Your task to perform on an android device: manage bookmarks in the chrome app Image 0: 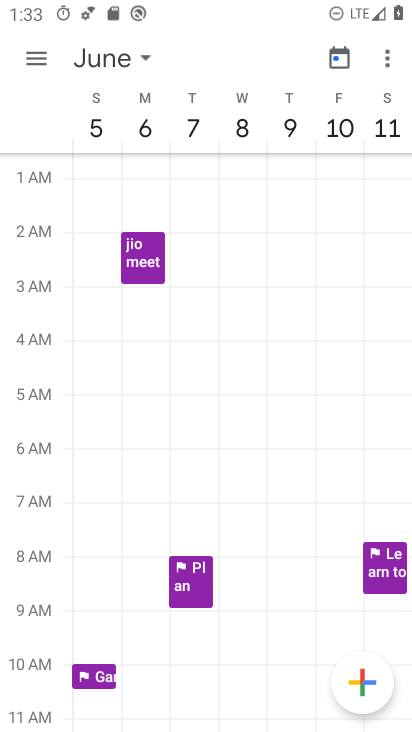
Step 0: press home button
Your task to perform on an android device: manage bookmarks in the chrome app Image 1: 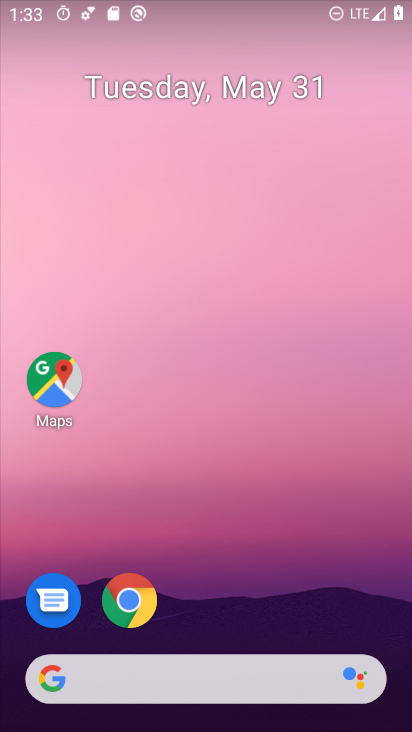
Step 1: click (128, 601)
Your task to perform on an android device: manage bookmarks in the chrome app Image 2: 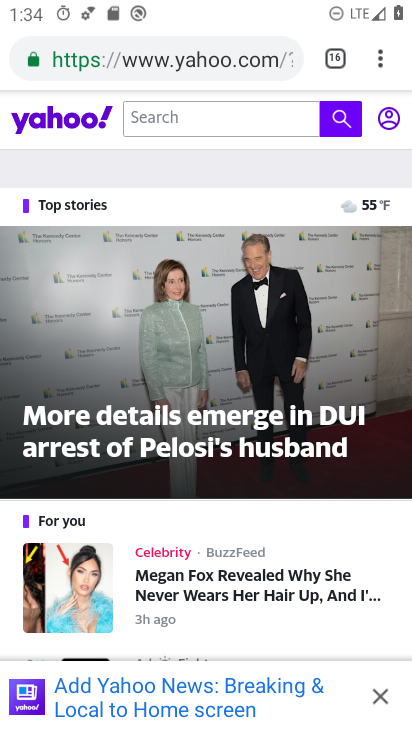
Step 2: click (381, 66)
Your task to perform on an android device: manage bookmarks in the chrome app Image 3: 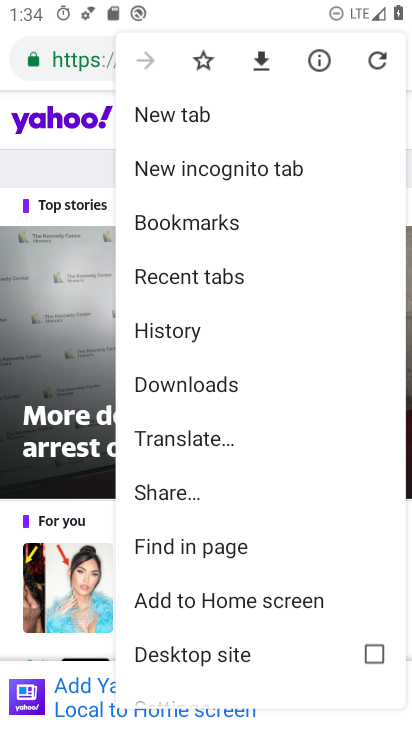
Step 3: click (201, 220)
Your task to perform on an android device: manage bookmarks in the chrome app Image 4: 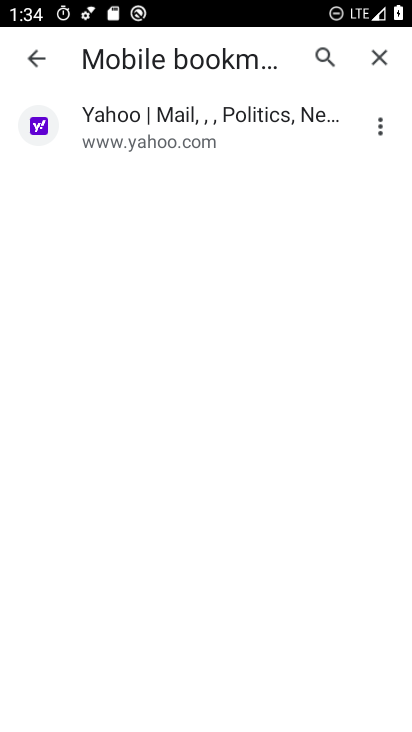
Step 4: click (378, 127)
Your task to perform on an android device: manage bookmarks in the chrome app Image 5: 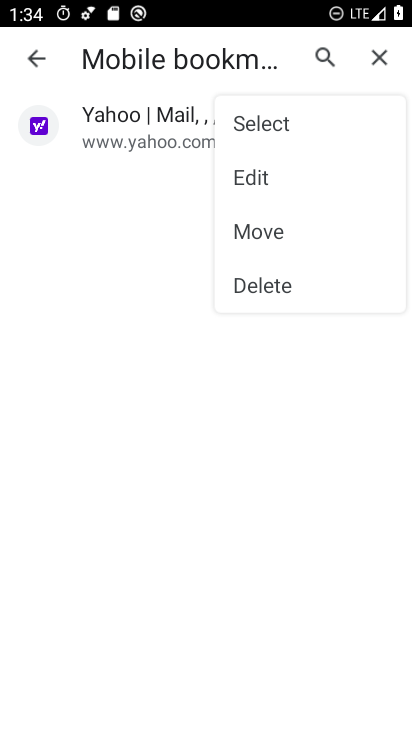
Step 5: click (246, 185)
Your task to perform on an android device: manage bookmarks in the chrome app Image 6: 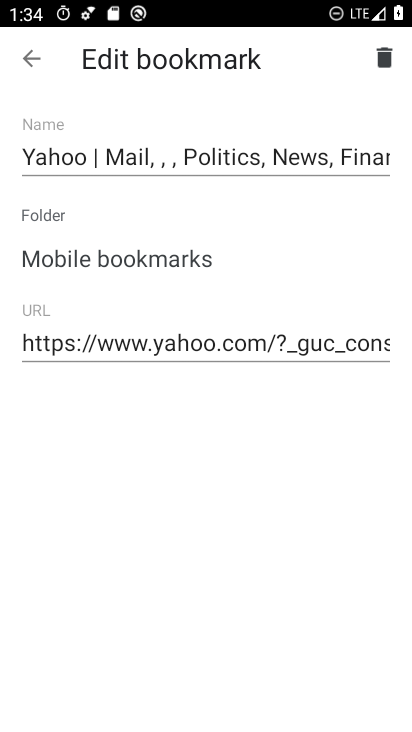
Step 6: click (235, 152)
Your task to perform on an android device: manage bookmarks in the chrome app Image 7: 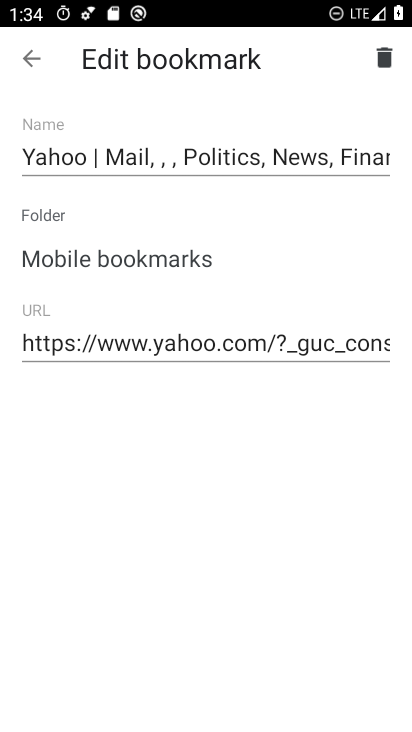
Step 7: click (235, 152)
Your task to perform on an android device: manage bookmarks in the chrome app Image 8: 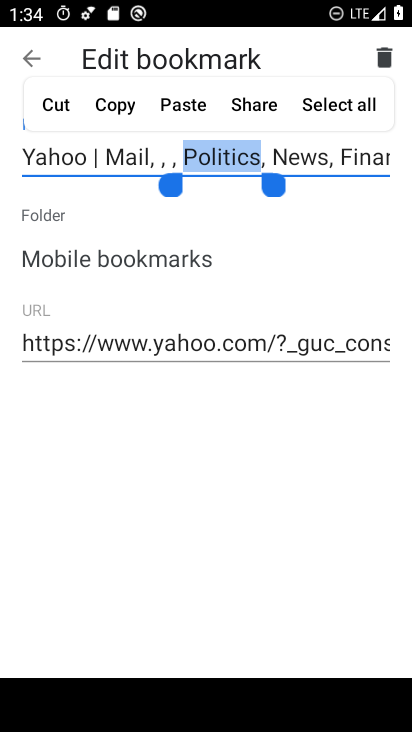
Step 8: click (56, 102)
Your task to perform on an android device: manage bookmarks in the chrome app Image 9: 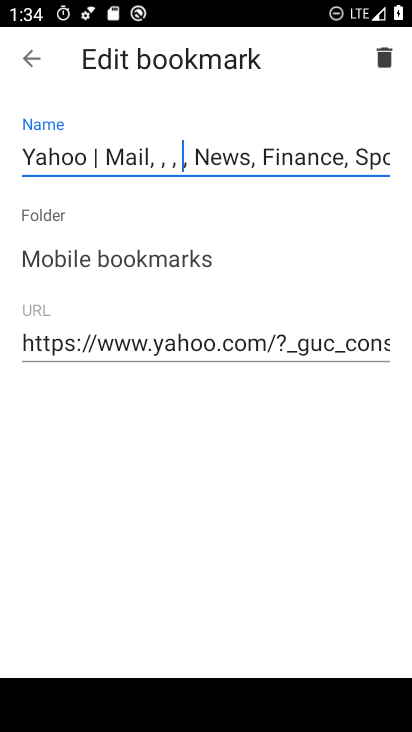
Step 9: click (25, 53)
Your task to perform on an android device: manage bookmarks in the chrome app Image 10: 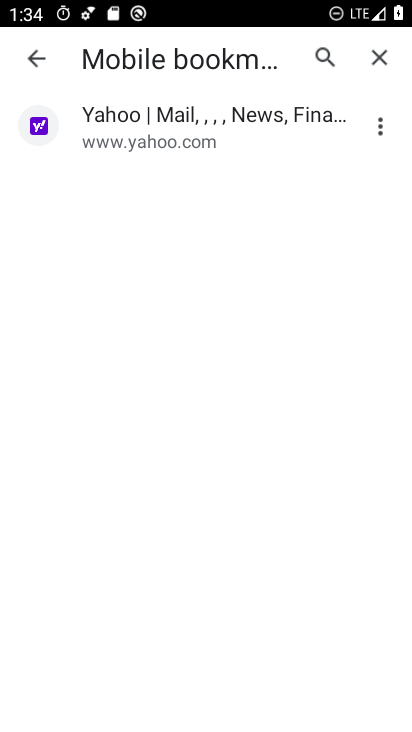
Step 10: task complete